Your task to perform on an android device: Check the news Image 0: 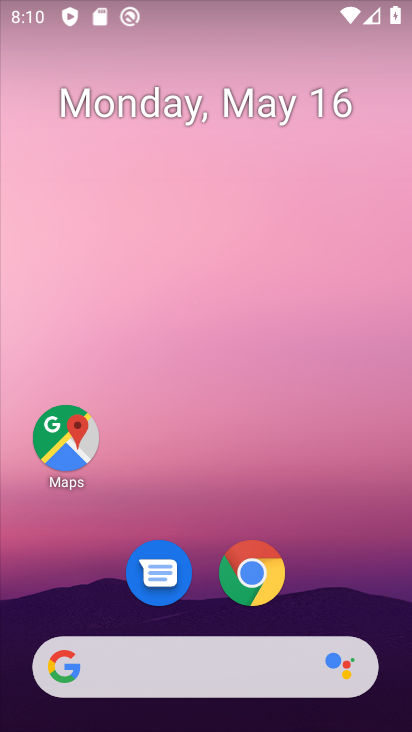
Step 0: drag from (2, 270) to (401, 268)
Your task to perform on an android device: Check the news Image 1: 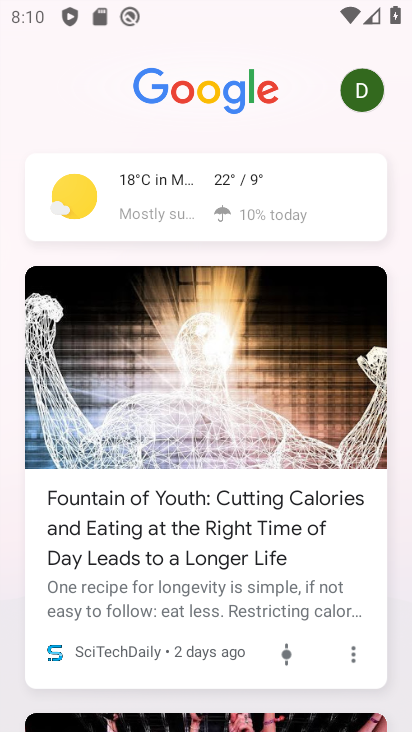
Step 1: task complete